Your task to perform on an android device: turn off translation in the chrome app Image 0: 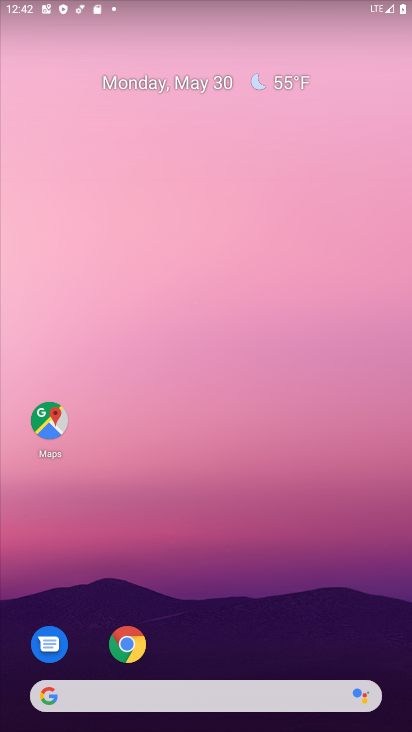
Step 0: click (136, 644)
Your task to perform on an android device: turn off translation in the chrome app Image 1: 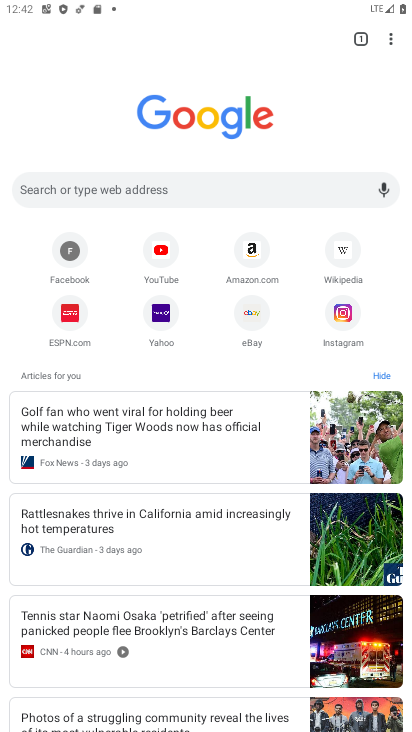
Step 1: click (397, 47)
Your task to perform on an android device: turn off translation in the chrome app Image 2: 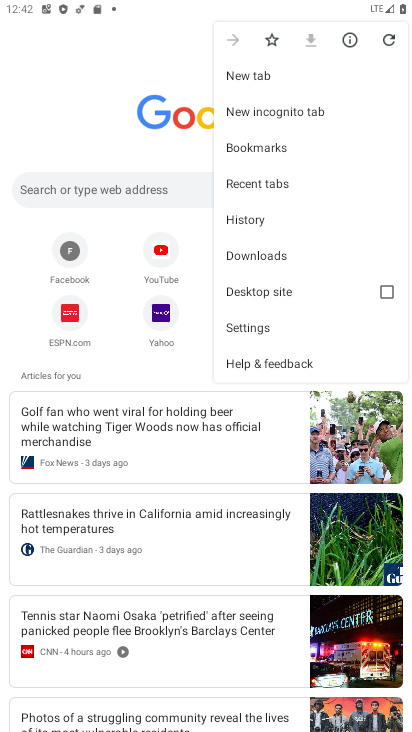
Step 2: click (283, 320)
Your task to perform on an android device: turn off translation in the chrome app Image 3: 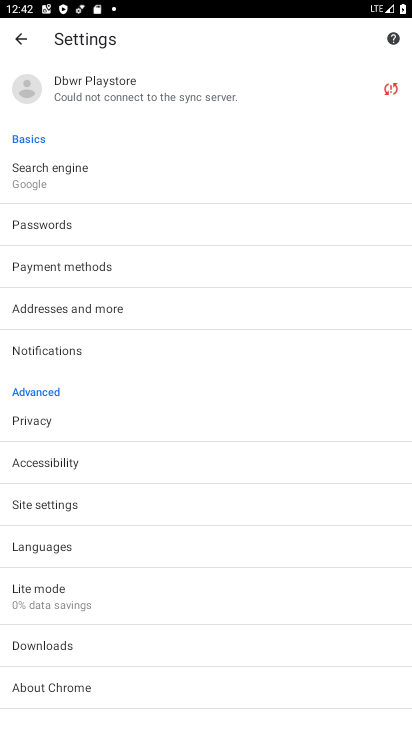
Step 3: click (143, 539)
Your task to perform on an android device: turn off translation in the chrome app Image 4: 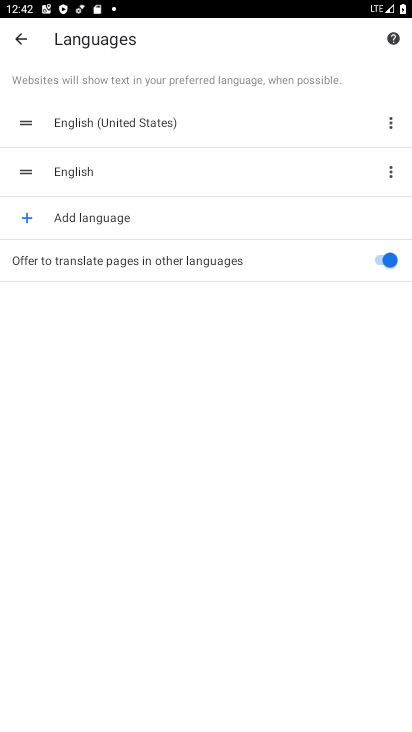
Step 4: click (376, 255)
Your task to perform on an android device: turn off translation in the chrome app Image 5: 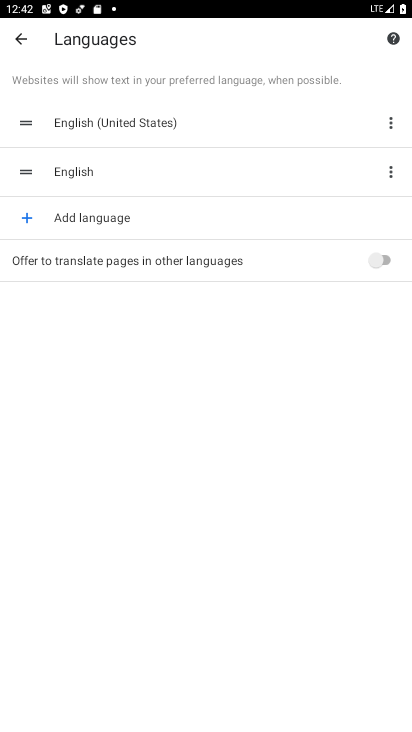
Step 5: task complete